Your task to perform on an android device: Open battery settings Image 0: 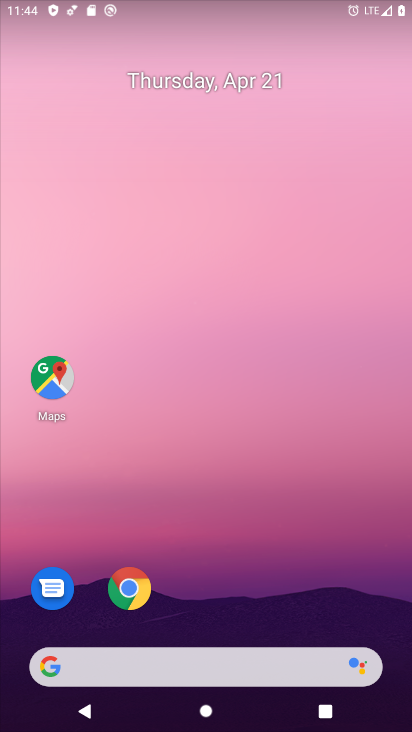
Step 0: drag from (249, 686) to (308, 63)
Your task to perform on an android device: Open battery settings Image 1: 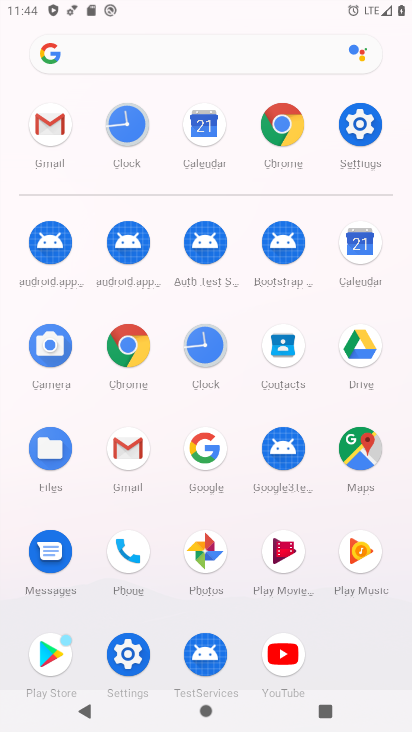
Step 1: click (368, 130)
Your task to perform on an android device: Open battery settings Image 2: 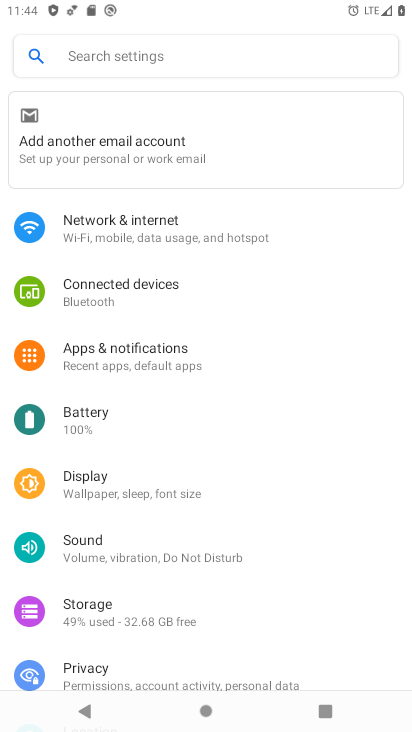
Step 2: click (129, 426)
Your task to perform on an android device: Open battery settings Image 3: 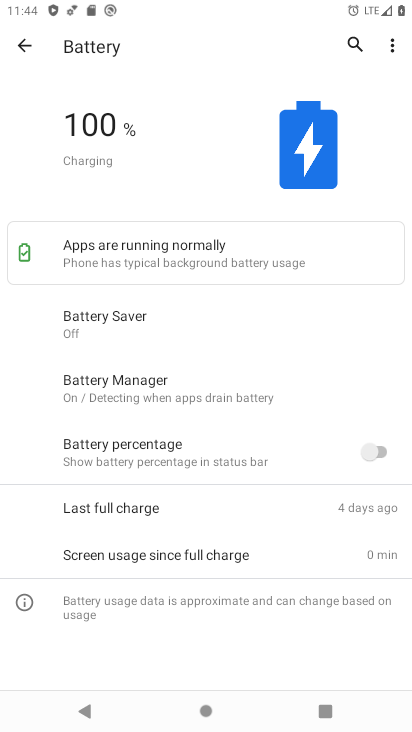
Step 3: task complete